Your task to perform on an android device: turn on notifications settings in the gmail app Image 0: 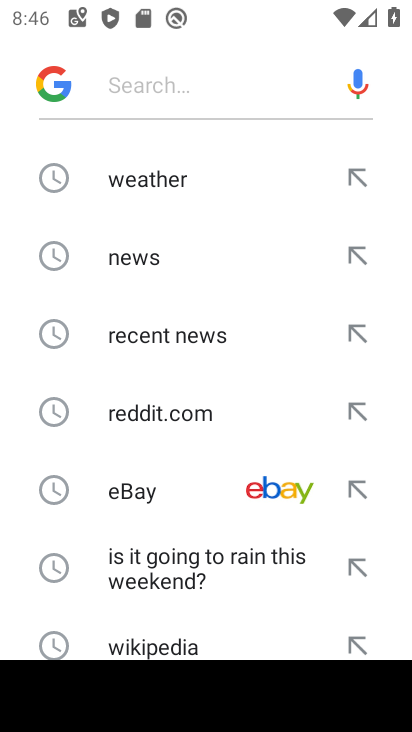
Step 0: press back button
Your task to perform on an android device: turn on notifications settings in the gmail app Image 1: 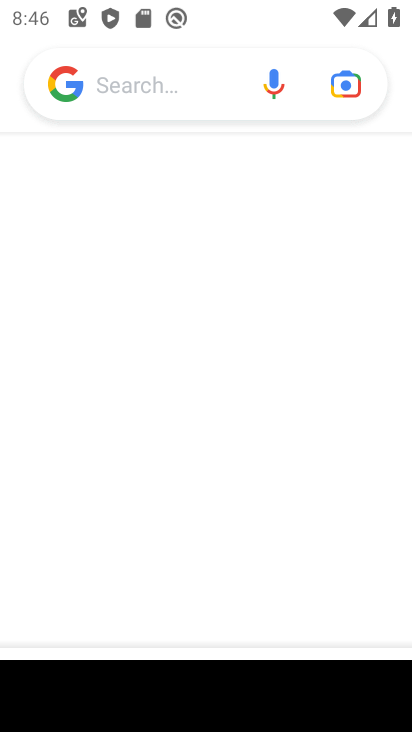
Step 1: press back button
Your task to perform on an android device: turn on notifications settings in the gmail app Image 2: 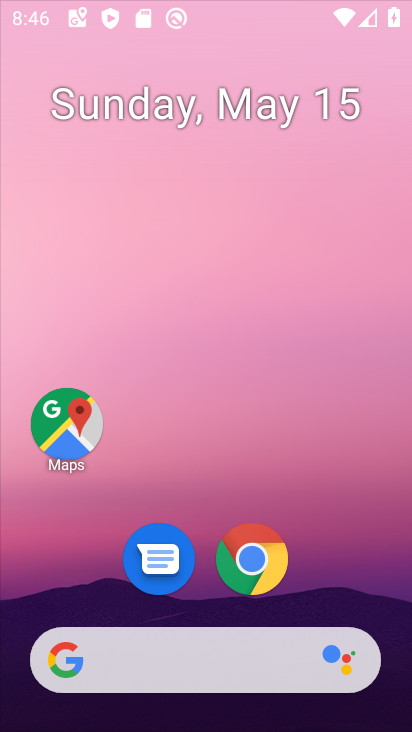
Step 2: press home button
Your task to perform on an android device: turn on notifications settings in the gmail app Image 3: 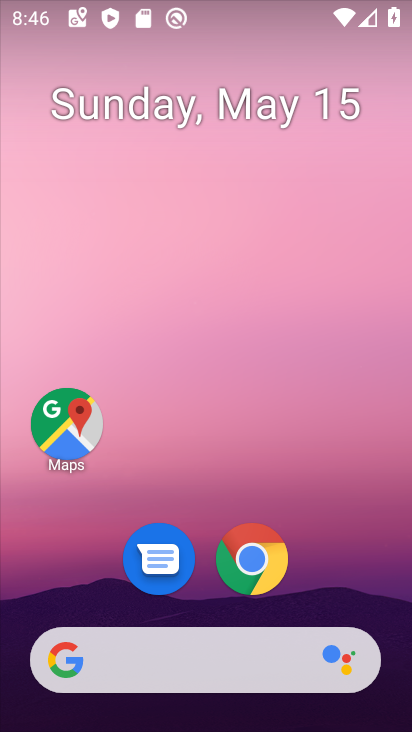
Step 3: drag from (369, 622) to (315, 159)
Your task to perform on an android device: turn on notifications settings in the gmail app Image 4: 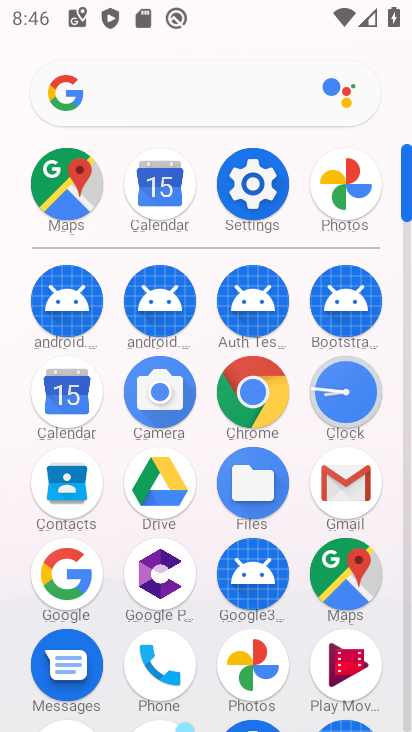
Step 4: click (332, 475)
Your task to perform on an android device: turn on notifications settings in the gmail app Image 5: 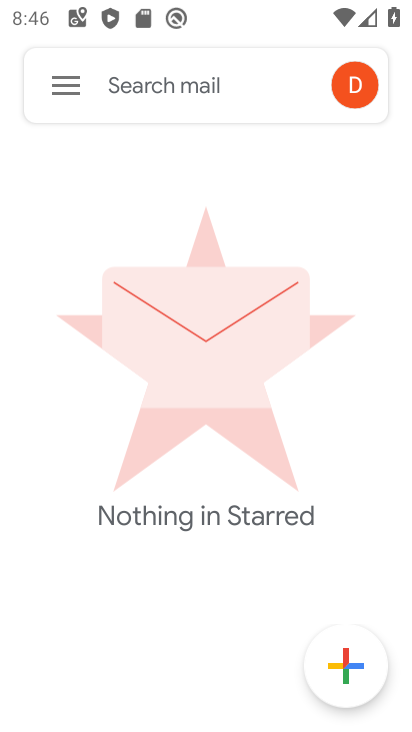
Step 5: click (70, 97)
Your task to perform on an android device: turn on notifications settings in the gmail app Image 6: 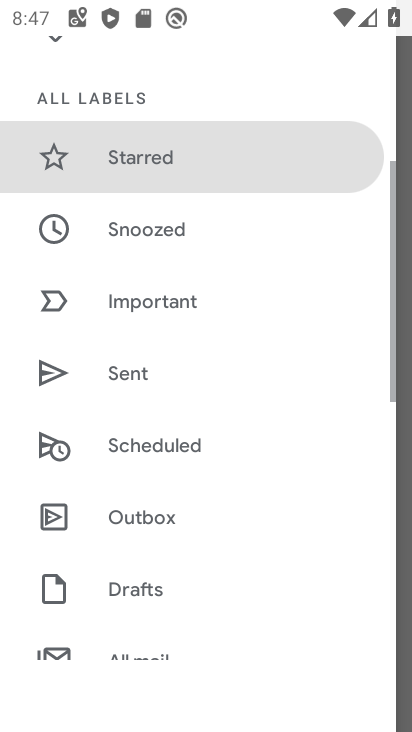
Step 6: drag from (151, 610) to (194, 270)
Your task to perform on an android device: turn on notifications settings in the gmail app Image 7: 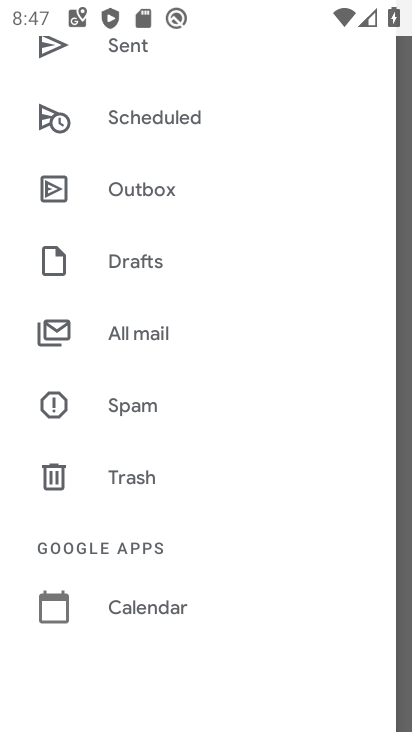
Step 7: drag from (229, 677) to (242, 399)
Your task to perform on an android device: turn on notifications settings in the gmail app Image 8: 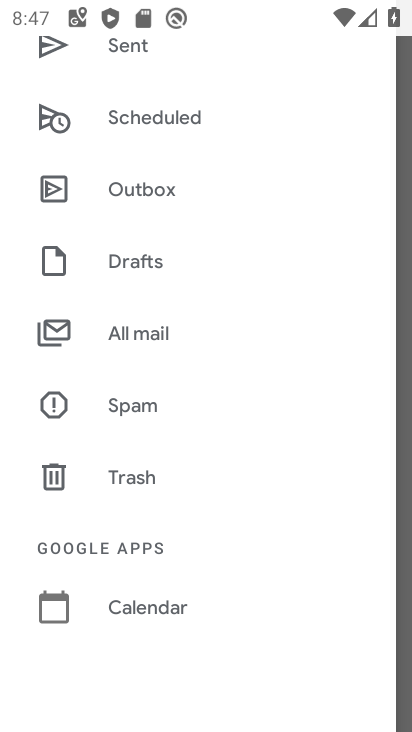
Step 8: drag from (234, 514) to (257, 296)
Your task to perform on an android device: turn on notifications settings in the gmail app Image 9: 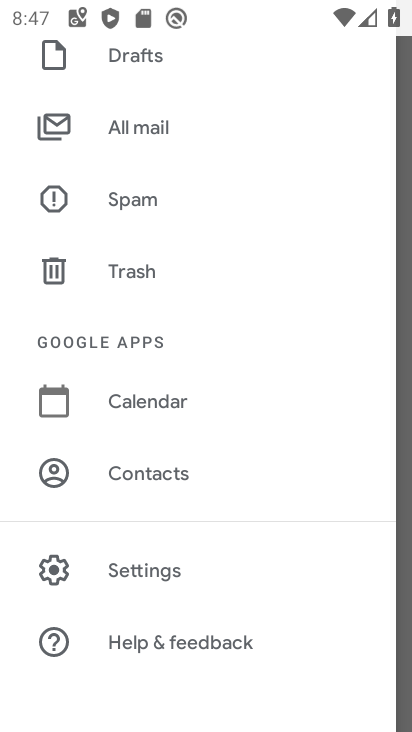
Step 9: click (277, 582)
Your task to perform on an android device: turn on notifications settings in the gmail app Image 10: 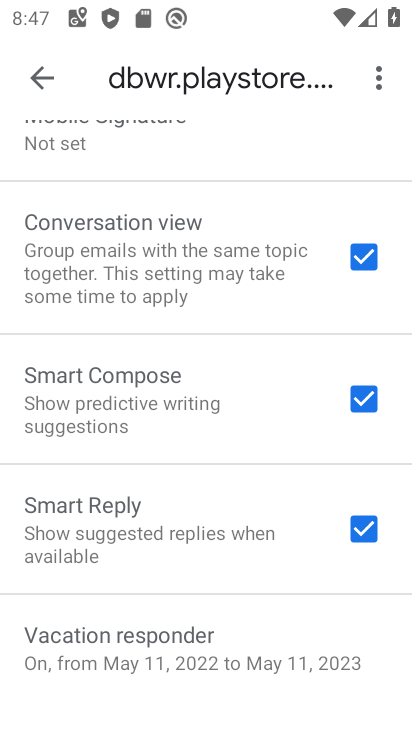
Step 10: drag from (150, 559) to (195, 286)
Your task to perform on an android device: turn on notifications settings in the gmail app Image 11: 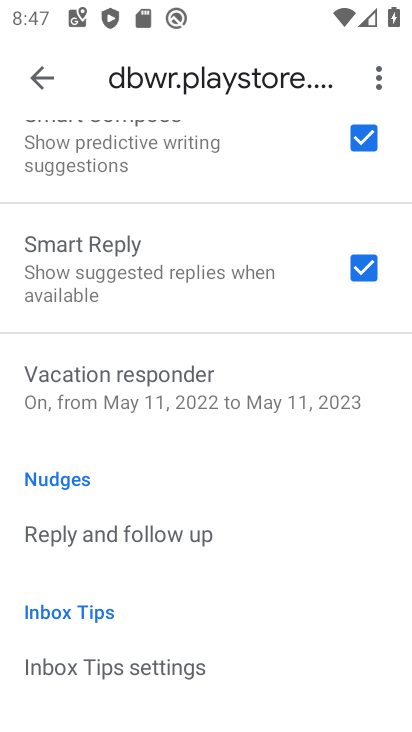
Step 11: drag from (186, 660) to (223, 360)
Your task to perform on an android device: turn on notifications settings in the gmail app Image 12: 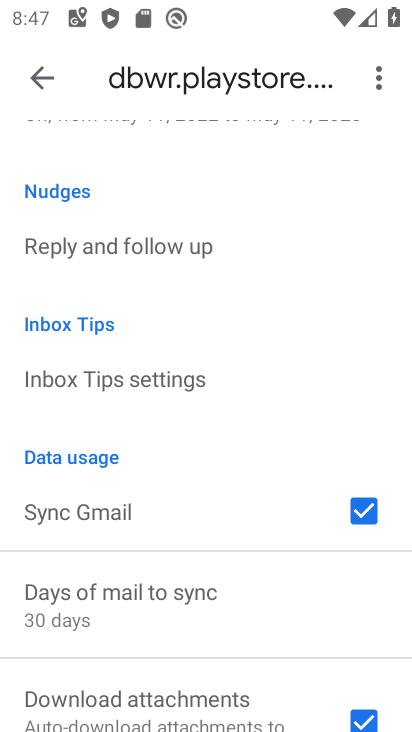
Step 12: drag from (182, 539) to (187, 427)
Your task to perform on an android device: turn on notifications settings in the gmail app Image 13: 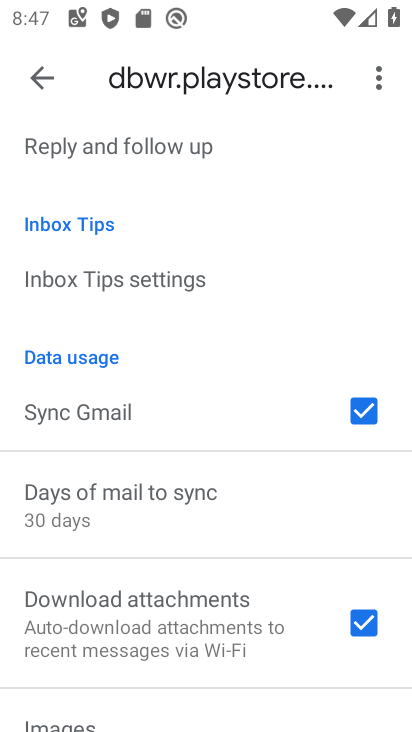
Step 13: drag from (161, 560) to (177, 414)
Your task to perform on an android device: turn on notifications settings in the gmail app Image 14: 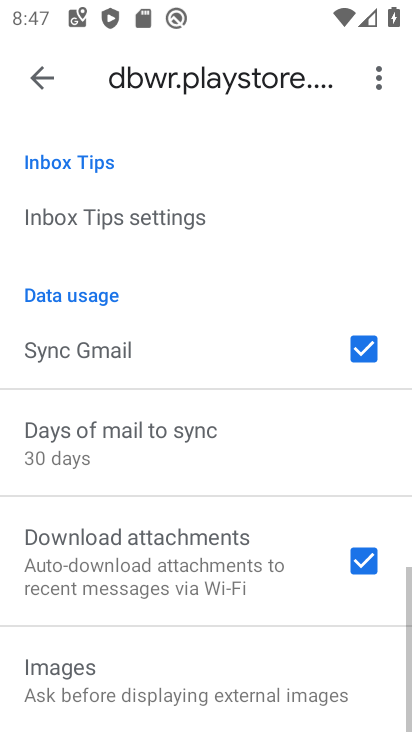
Step 14: drag from (173, 614) to (238, 299)
Your task to perform on an android device: turn on notifications settings in the gmail app Image 15: 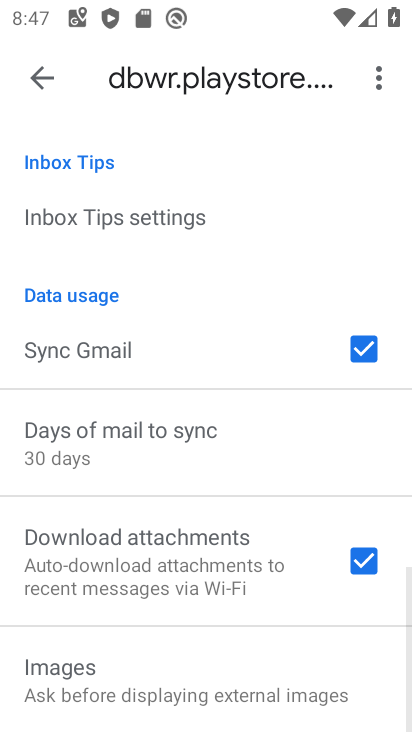
Step 15: drag from (235, 288) to (227, 633)
Your task to perform on an android device: turn on notifications settings in the gmail app Image 16: 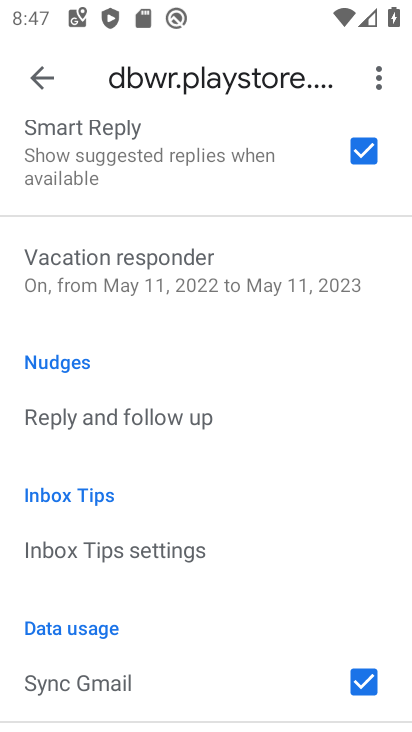
Step 16: drag from (215, 261) to (216, 656)
Your task to perform on an android device: turn on notifications settings in the gmail app Image 17: 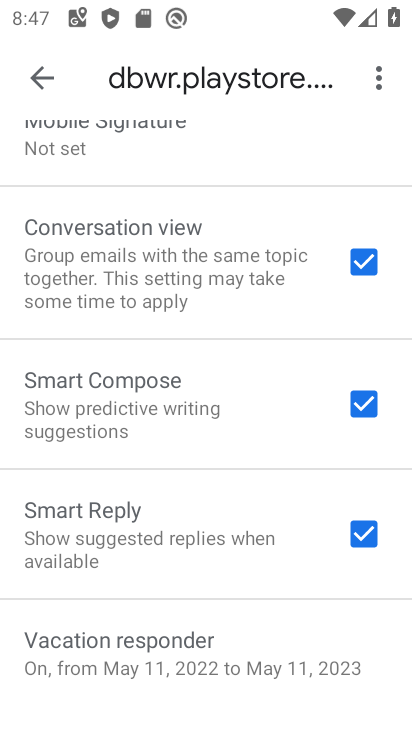
Step 17: drag from (216, 196) to (225, 726)
Your task to perform on an android device: turn on notifications settings in the gmail app Image 18: 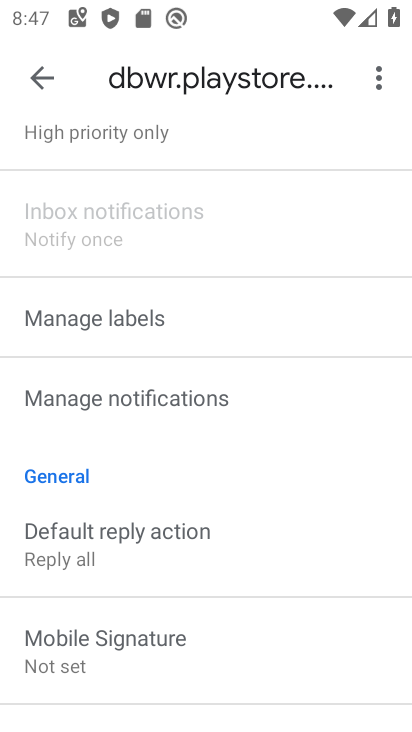
Step 18: click (237, 412)
Your task to perform on an android device: turn on notifications settings in the gmail app Image 19: 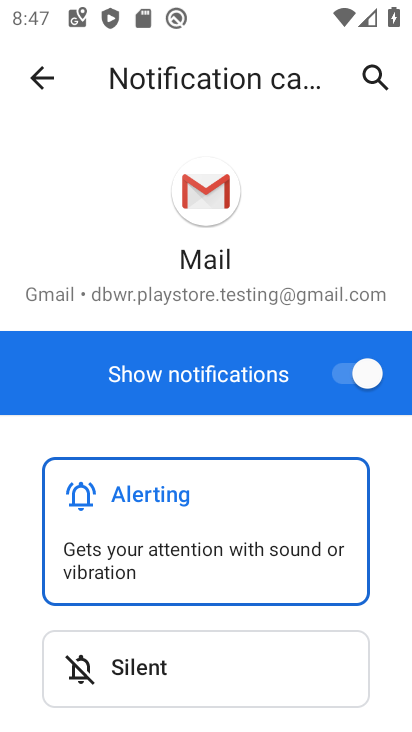
Step 19: task complete